Your task to perform on an android device: Go to Google Image 0: 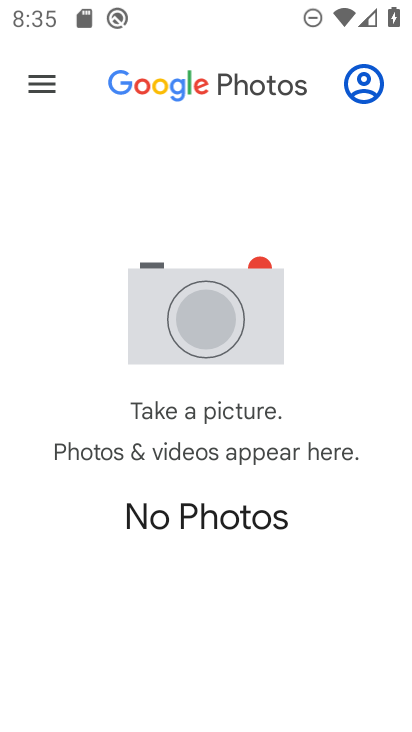
Step 0: press home button
Your task to perform on an android device: Go to Google Image 1: 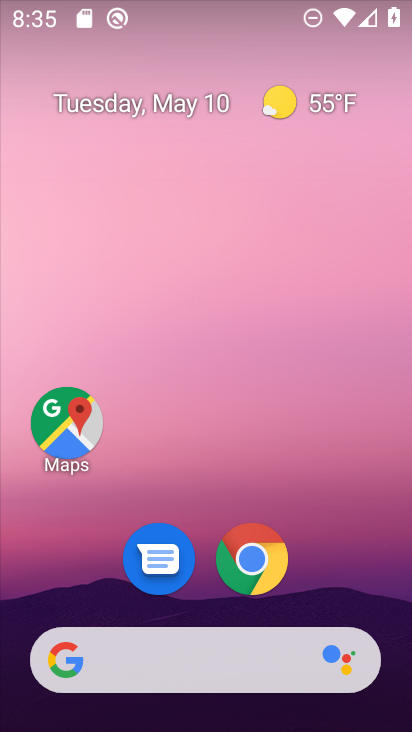
Step 1: drag from (198, 725) to (204, 150)
Your task to perform on an android device: Go to Google Image 2: 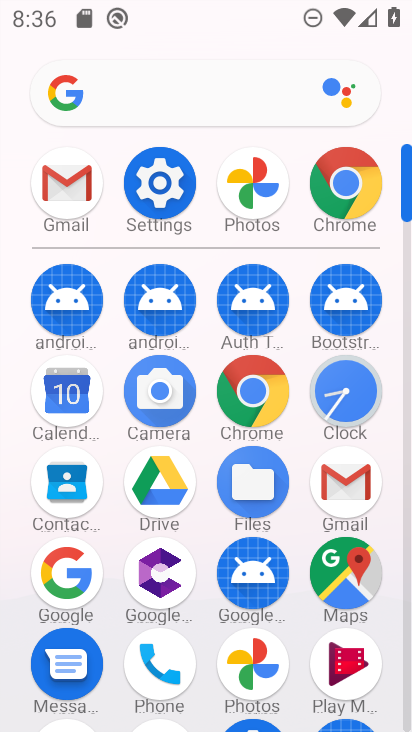
Step 2: click (69, 577)
Your task to perform on an android device: Go to Google Image 3: 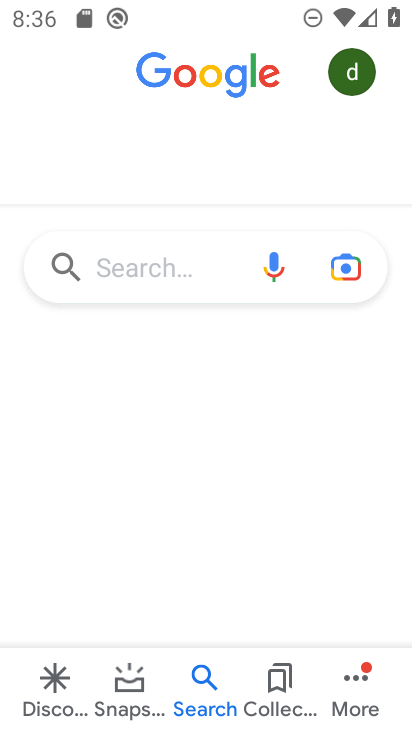
Step 3: task complete